Your task to perform on an android device: Do I have any events tomorrow? Image 0: 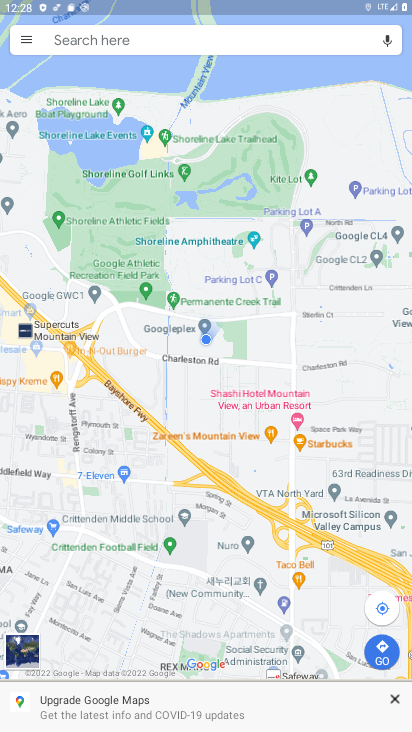
Step 0: press home button
Your task to perform on an android device: Do I have any events tomorrow? Image 1: 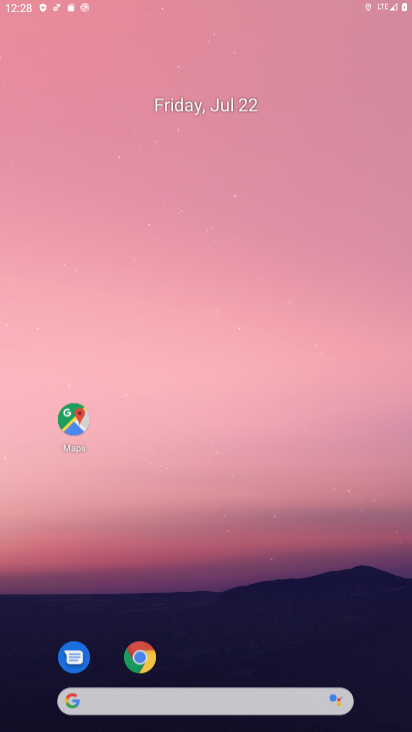
Step 1: press home button
Your task to perform on an android device: Do I have any events tomorrow? Image 2: 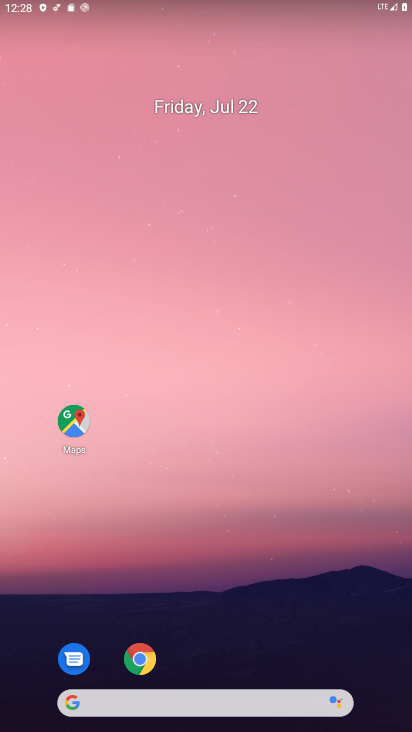
Step 2: drag from (207, 651) to (213, 148)
Your task to perform on an android device: Do I have any events tomorrow? Image 3: 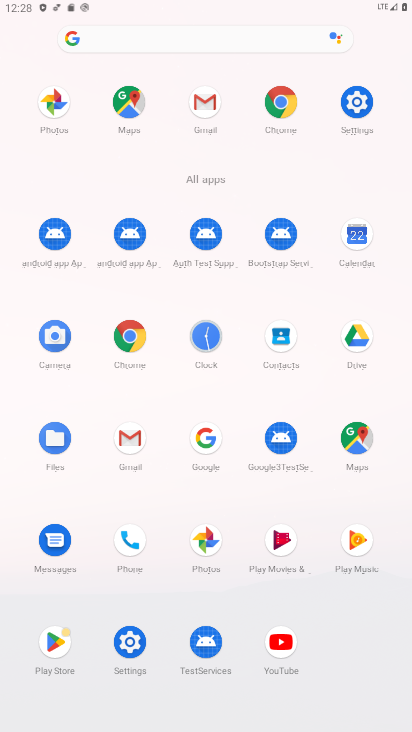
Step 3: click (363, 244)
Your task to perform on an android device: Do I have any events tomorrow? Image 4: 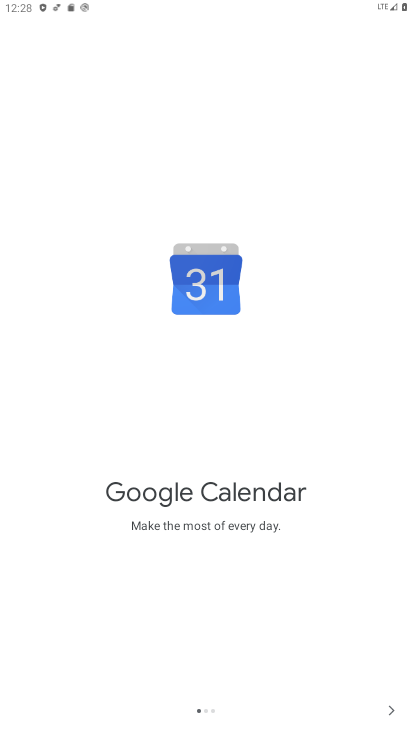
Step 4: click (391, 706)
Your task to perform on an android device: Do I have any events tomorrow? Image 5: 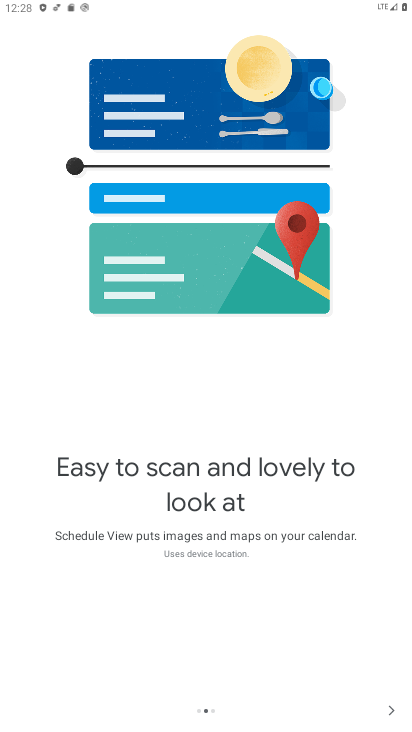
Step 5: click (391, 706)
Your task to perform on an android device: Do I have any events tomorrow? Image 6: 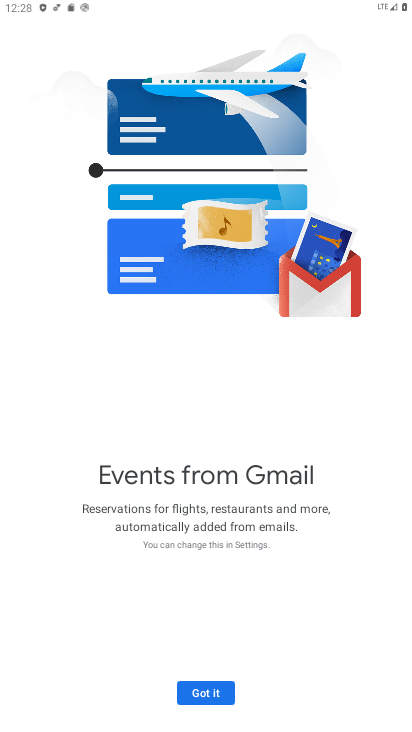
Step 6: click (209, 691)
Your task to perform on an android device: Do I have any events tomorrow? Image 7: 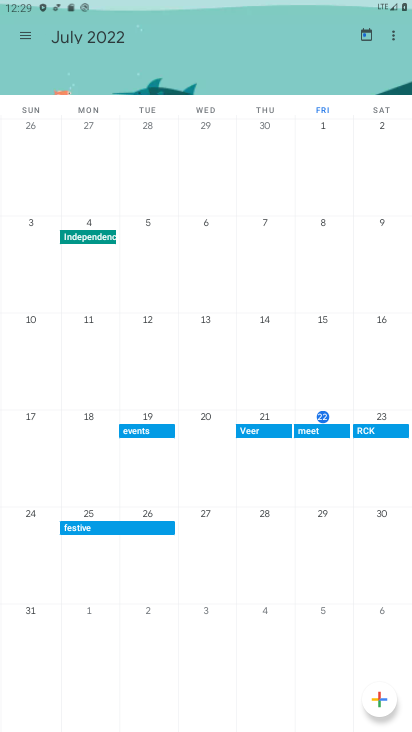
Step 7: click (22, 39)
Your task to perform on an android device: Do I have any events tomorrow? Image 8: 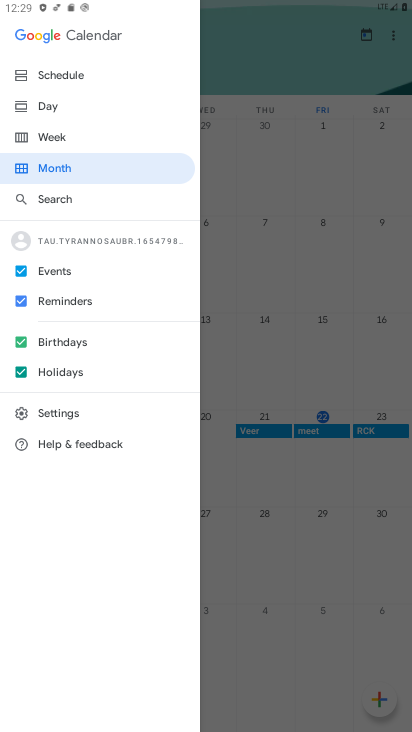
Step 8: click (64, 78)
Your task to perform on an android device: Do I have any events tomorrow? Image 9: 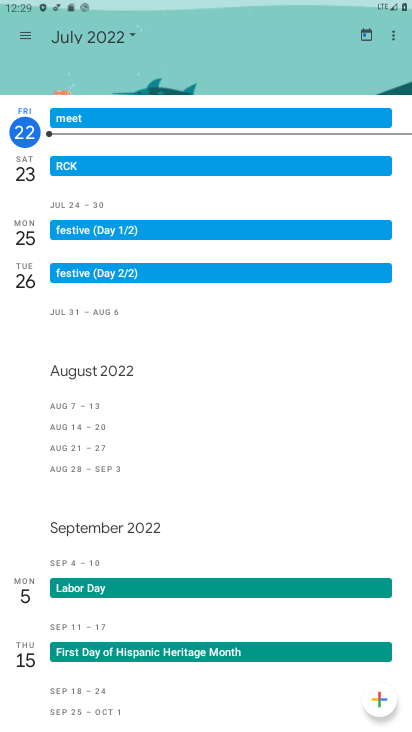
Step 9: click (129, 27)
Your task to perform on an android device: Do I have any events tomorrow? Image 10: 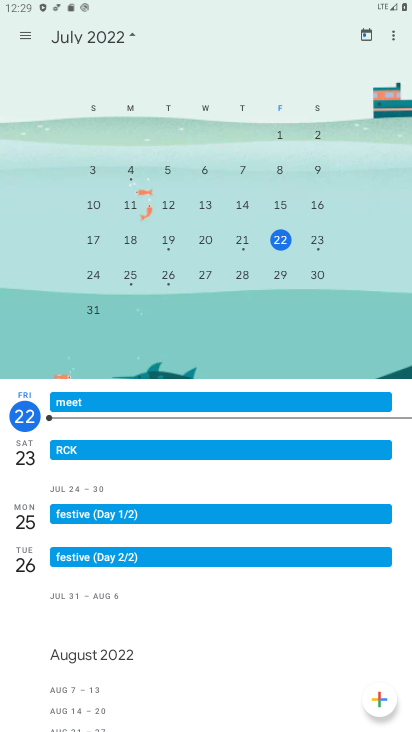
Step 10: click (304, 235)
Your task to perform on an android device: Do I have any events tomorrow? Image 11: 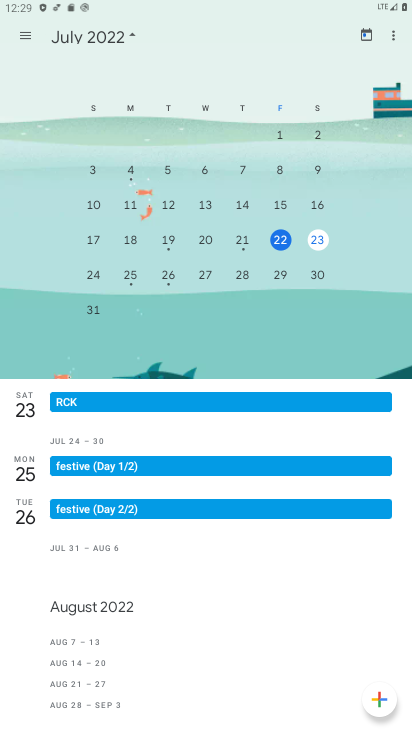
Step 11: task complete